Your task to perform on an android device: change timer sound Image 0: 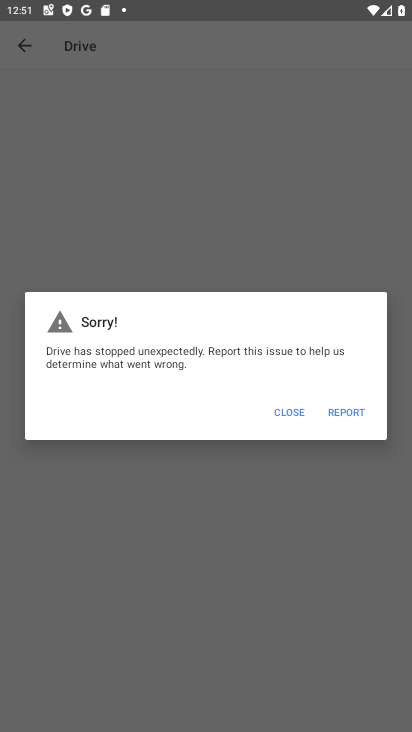
Step 0: press home button
Your task to perform on an android device: change timer sound Image 1: 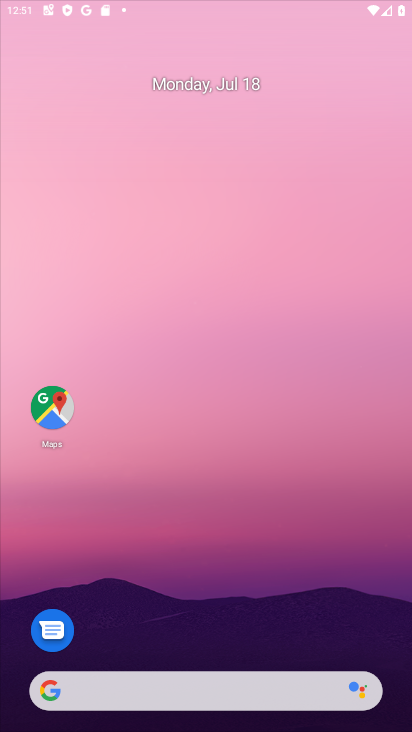
Step 1: drag from (284, 689) to (190, 0)
Your task to perform on an android device: change timer sound Image 2: 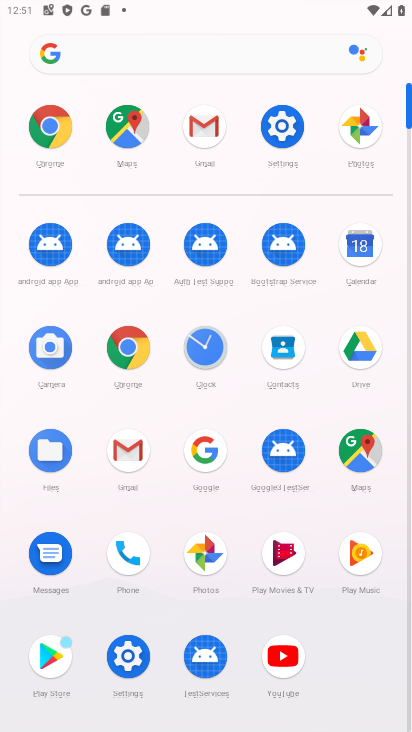
Step 2: click (199, 347)
Your task to perform on an android device: change timer sound Image 3: 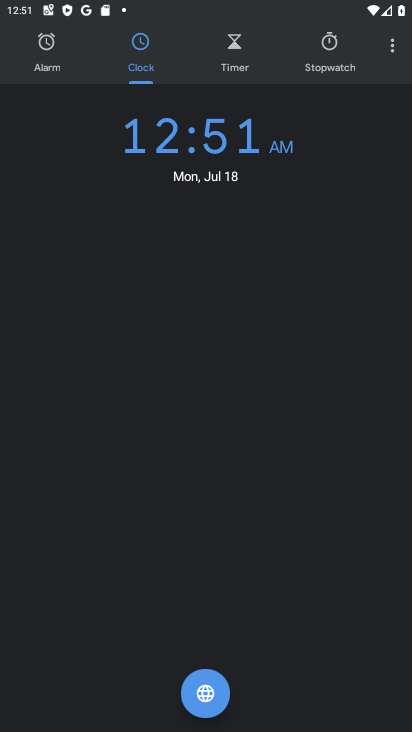
Step 3: click (384, 38)
Your task to perform on an android device: change timer sound Image 4: 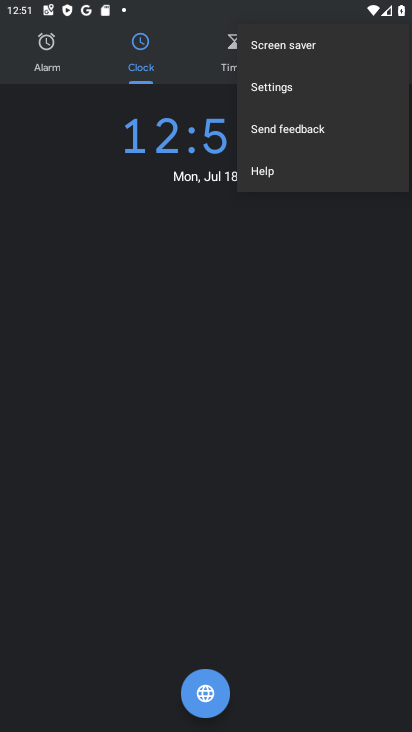
Step 4: click (284, 73)
Your task to perform on an android device: change timer sound Image 5: 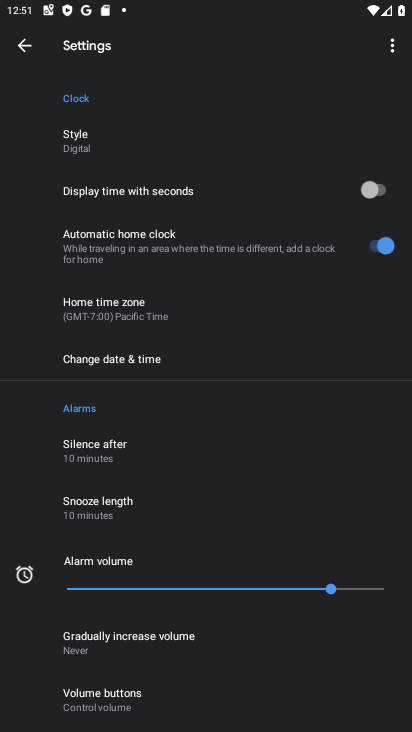
Step 5: drag from (117, 518) to (128, 132)
Your task to perform on an android device: change timer sound Image 6: 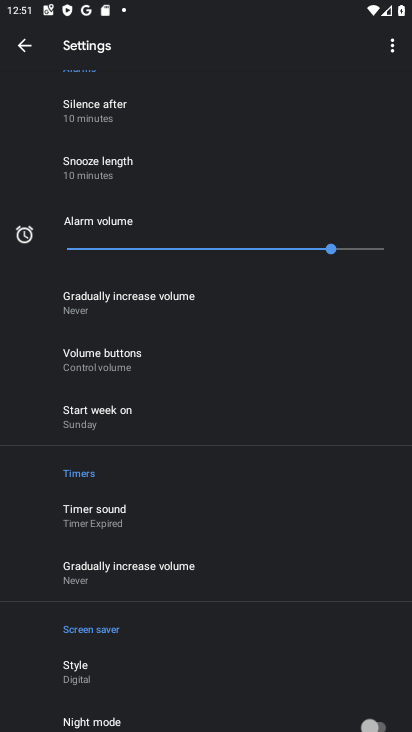
Step 6: click (124, 517)
Your task to perform on an android device: change timer sound Image 7: 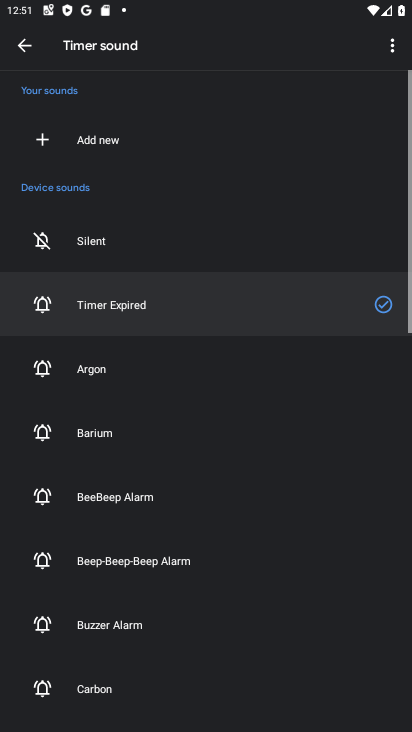
Step 7: click (112, 368)
Your task to perform on an android device: change timer sound Image 8: 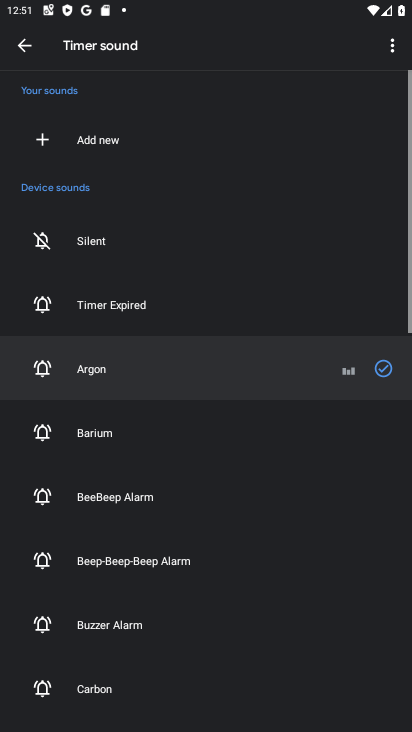
Step 8: task complete